Your task to perform on an android device: What's the weather today? Image 0: 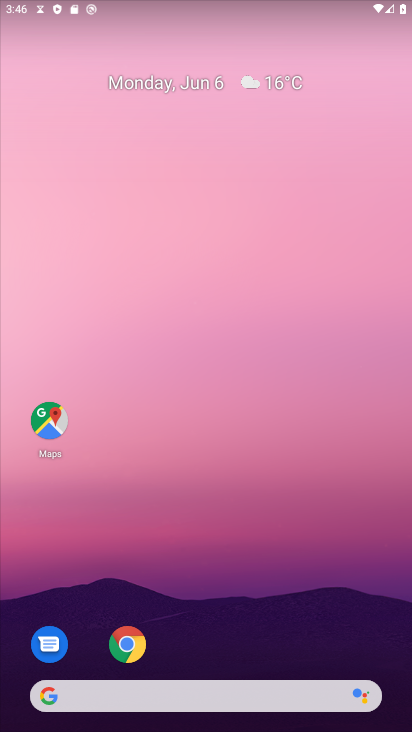
Step 0: click (164, 706)
Your task to perform on an android device: What's the weather today? Image 1: 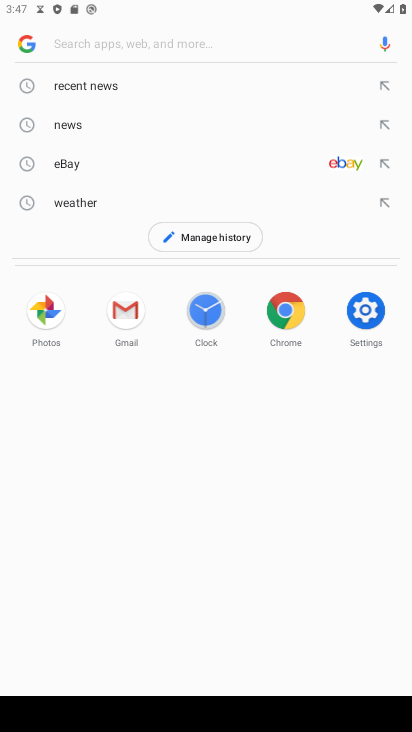
Step 1: click (87, 203)
Your task to perform on an android device: What's the weather today? Image 2: 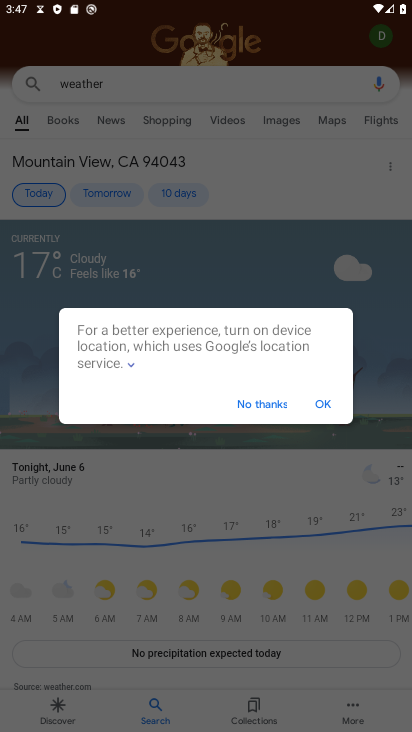
Step 2: click (318, 397)
Your task to perform on an android device: What's the weather today? Image 3: 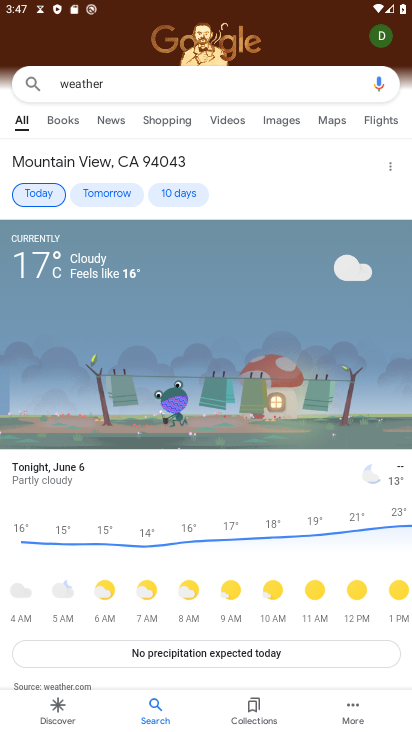
Step 3: task complete